Your task to perform on an android device: check out phone information Image 0: 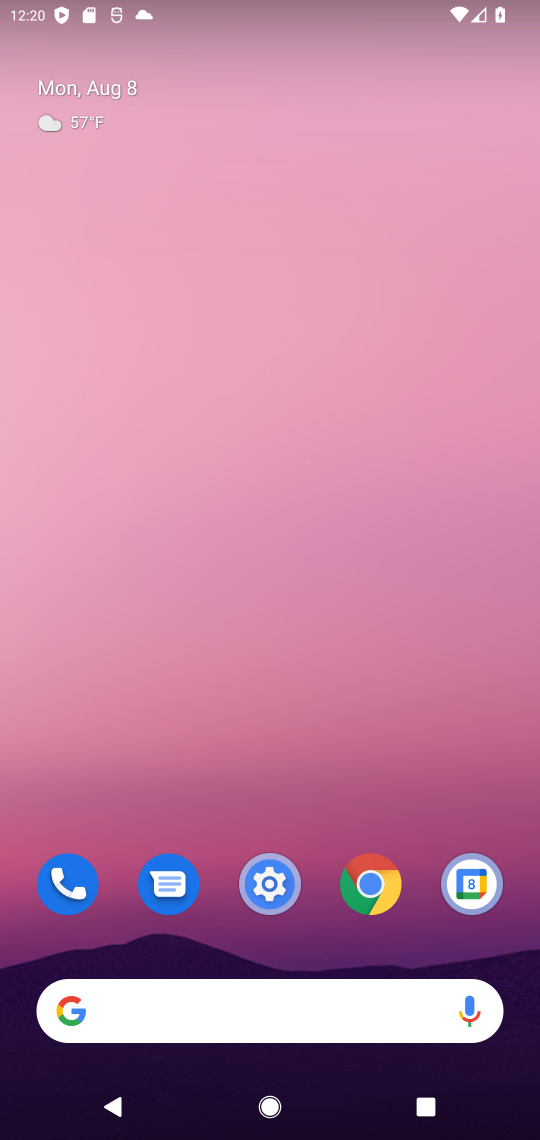
Step 0: click (269, 893)
Your task to perform on an android device: check out phone information Image 1: 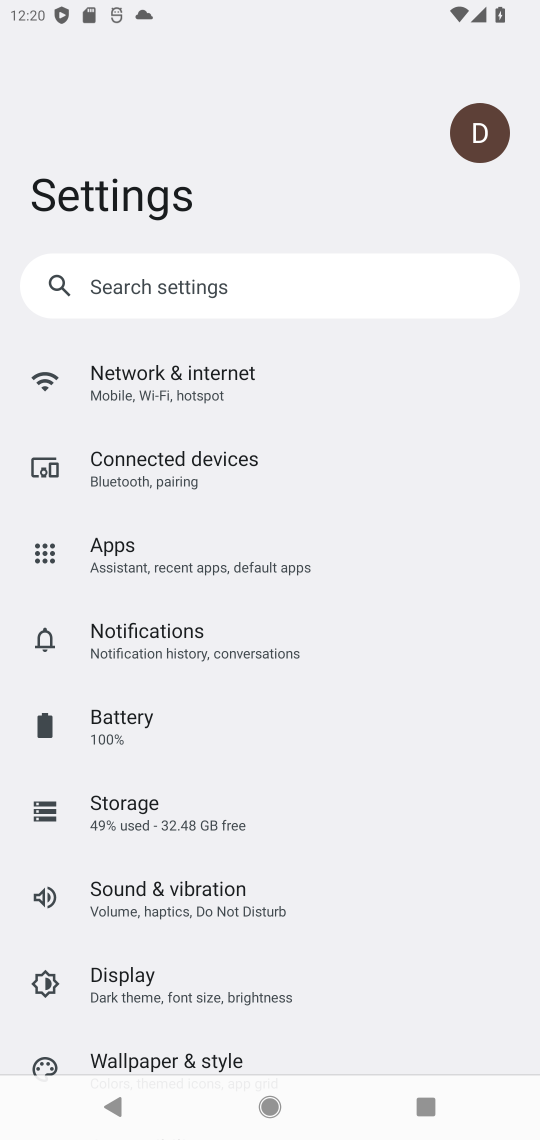
Step 1: drag from (310, 862) to (307, 4)
Your task to perform on an android device: check out phone information Image 2: 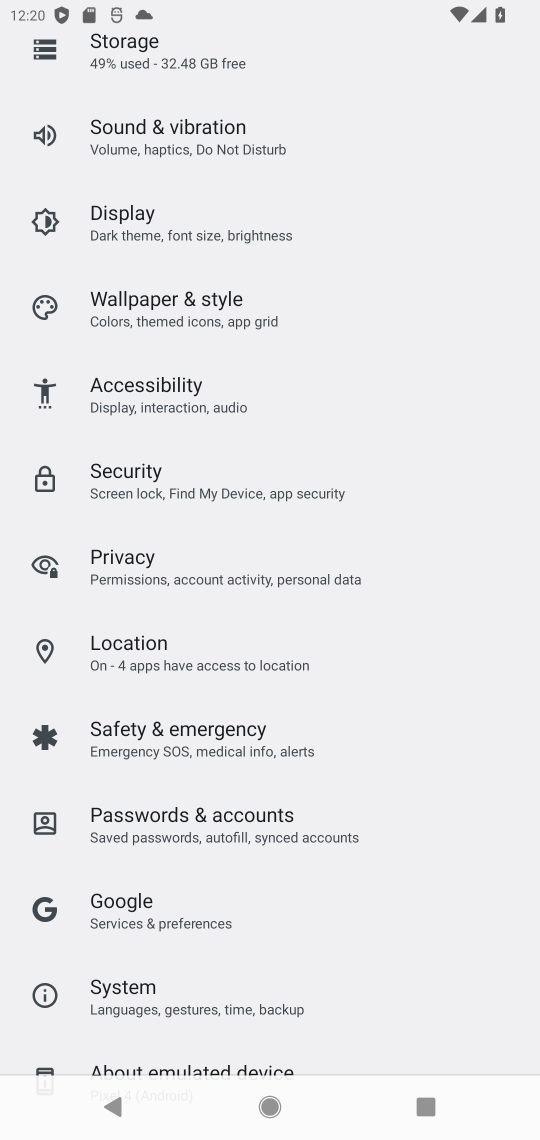
Step 2: drag from (385, 995) to (396, 167)
Your task to perform on an android device: check out phone information Image 3: 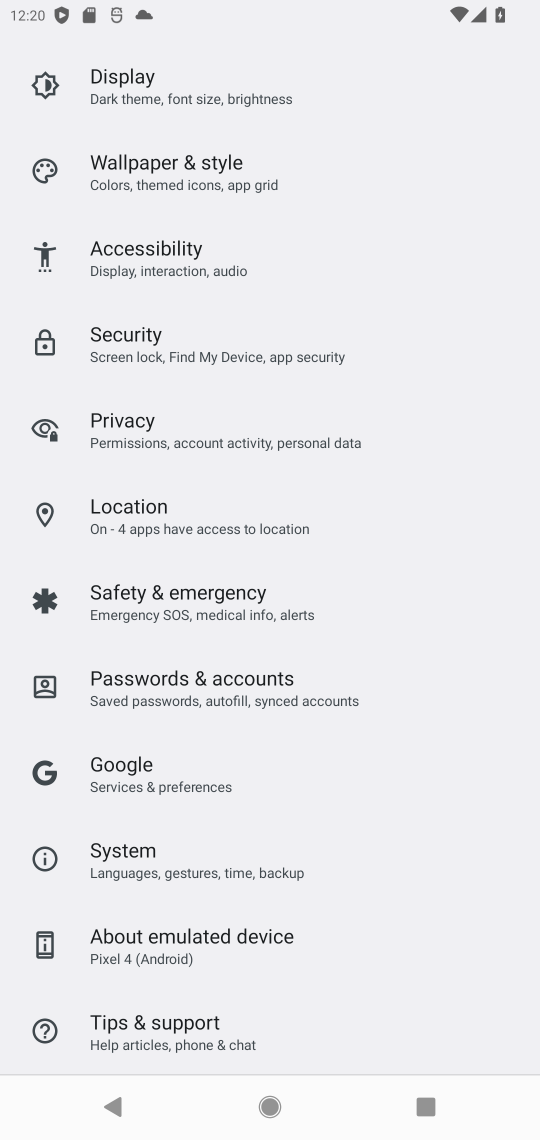
Step 3: click (208, 941)
Your task to perform on an android device: check out phone information Image 4: 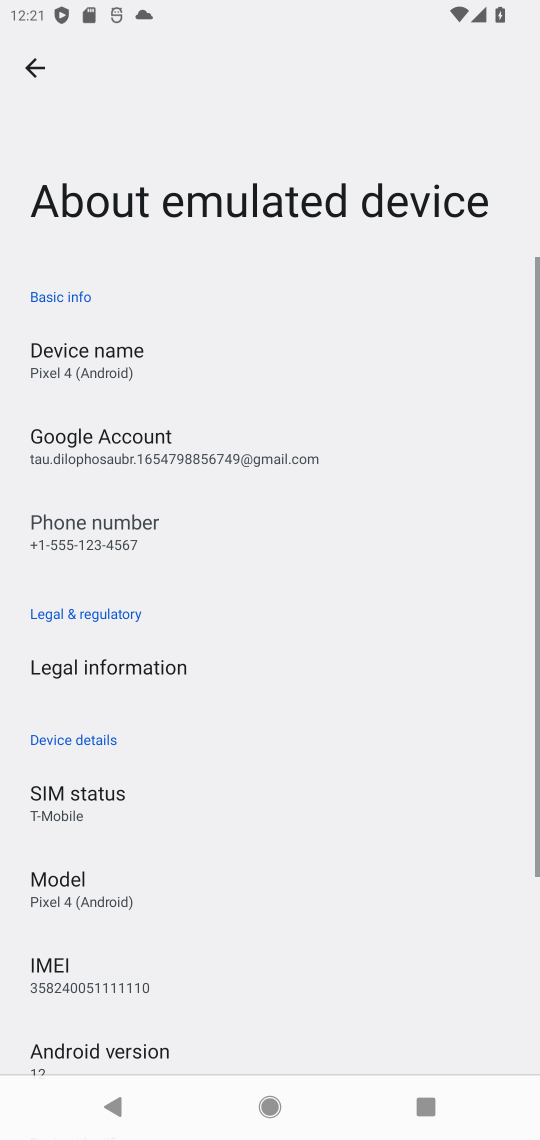
Step 4: task complete